Your task to perform on an android device: Is it going to rain today? Image 0: 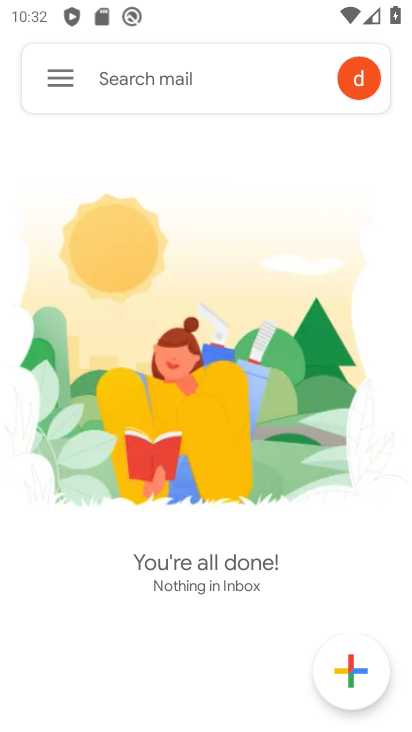
Step 0: press home button
Your task to perform on an android device: Is it going to rain today? Image 1: 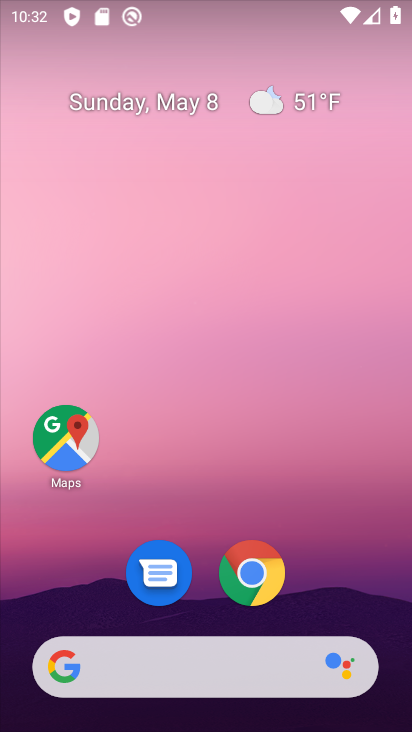
Step 1: drag from (237, 639) to (258, 212)
Your task to perform on an android device: Is it going to rain today? Image 2: 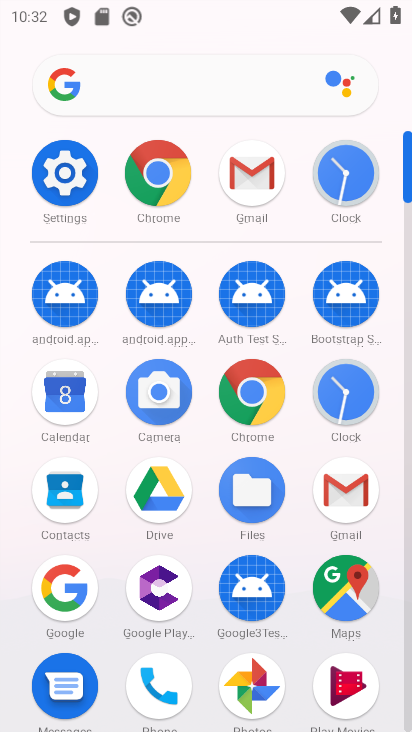
Step 2: click (66, 596)
Your task to perform on an android device: Is it going to rain today? Image 3: 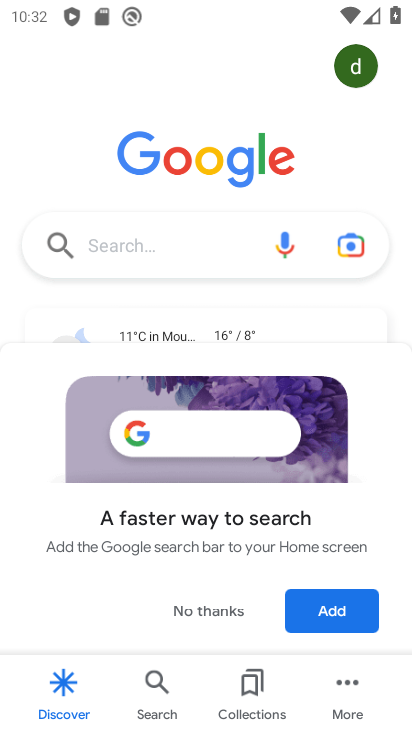
Step 3: drag from (117, 243) to (21, 243)
Your task to perform on an android device: Is it going to rain today? Image 4: 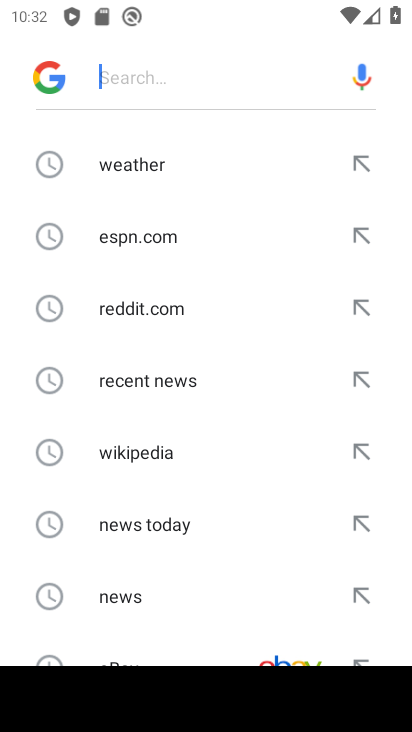
Step 4: drag from (176, 581) to (184, 228)
Your task to perform on an android device: Is it going to rain today? Image 5: 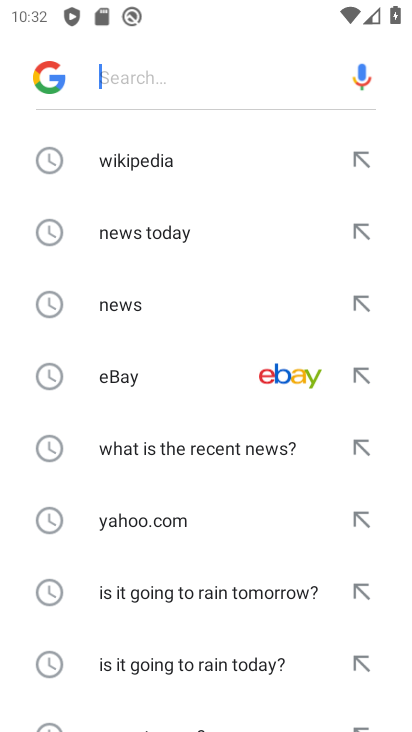
Step 5: click (192, 584)
Your task to perform on an android device: Is it going to rain today? Image 6: 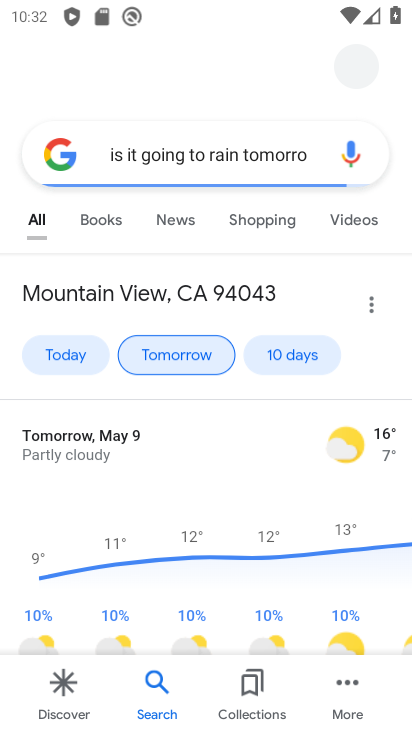
Step 6: click (291, 80)
Your task to perform on an android device: Is it going to rain today? Image 7: 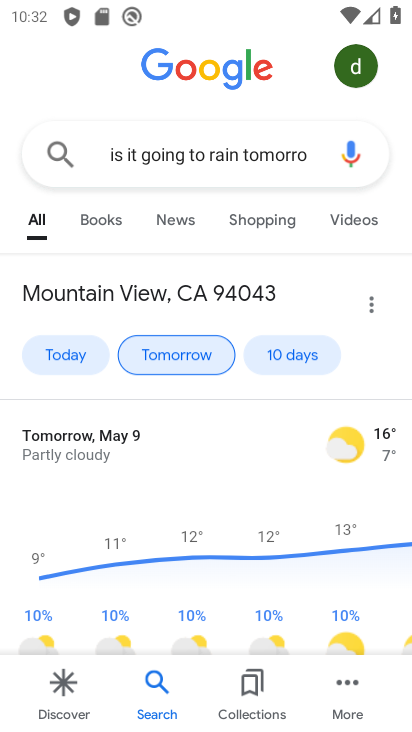
Step 7: click (292, 149)
Your task to perform on an android device: Is it going to rain today? Image 8: 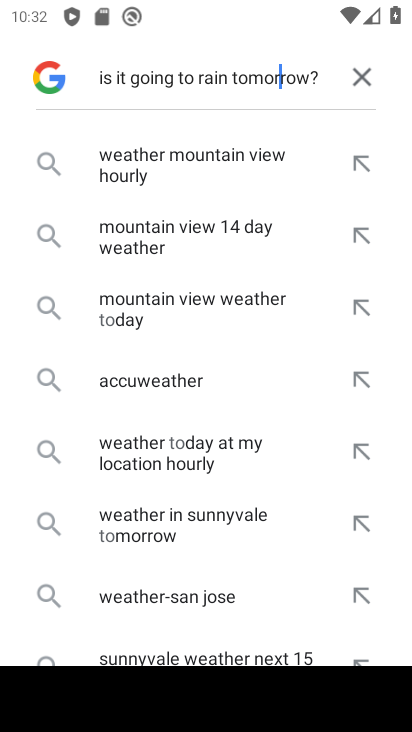
Step 8: type "t"
Your task to perform on an android device: Is it going to rain today? Image 9: 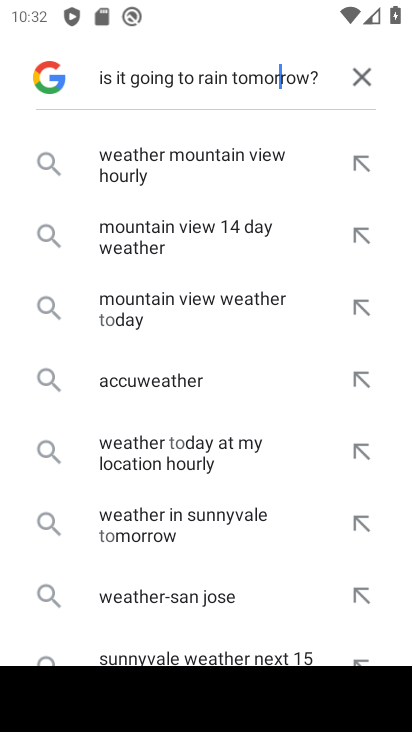
Step 9: click (367, 75)
Your task to perform on an android device: Is it going to rain today? Image 10: 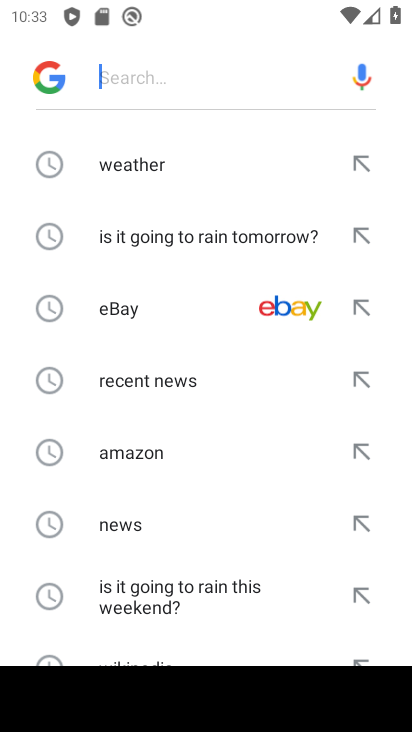
Step 10: type "is it going to rain today"
Your task to perform on an android device: Is it going to rain today? Image 11: 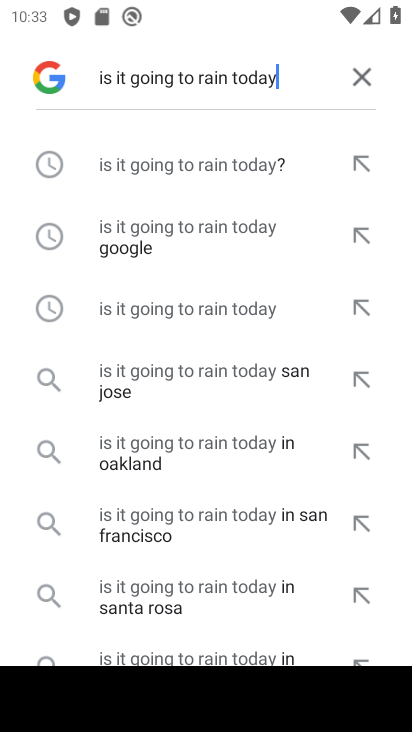
Step 11: click (127, 158)
Your task to perform on an android device: Is it going to rain today? Image 12: 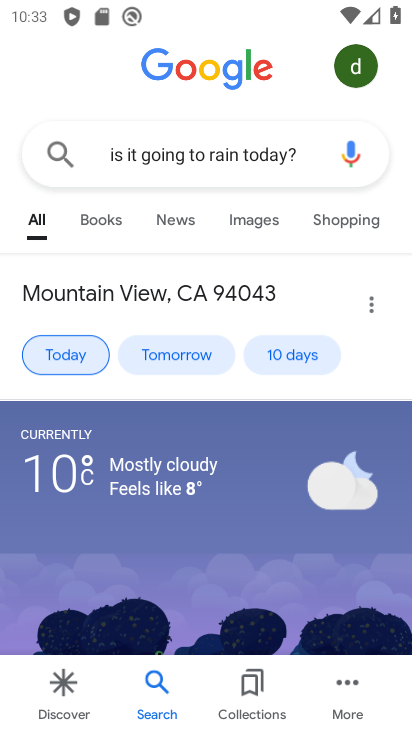
Step 12: task complete